Your task to perform on an android device: open app "Walmart Shopping & Grocery" (install if not already installed) Image 0: 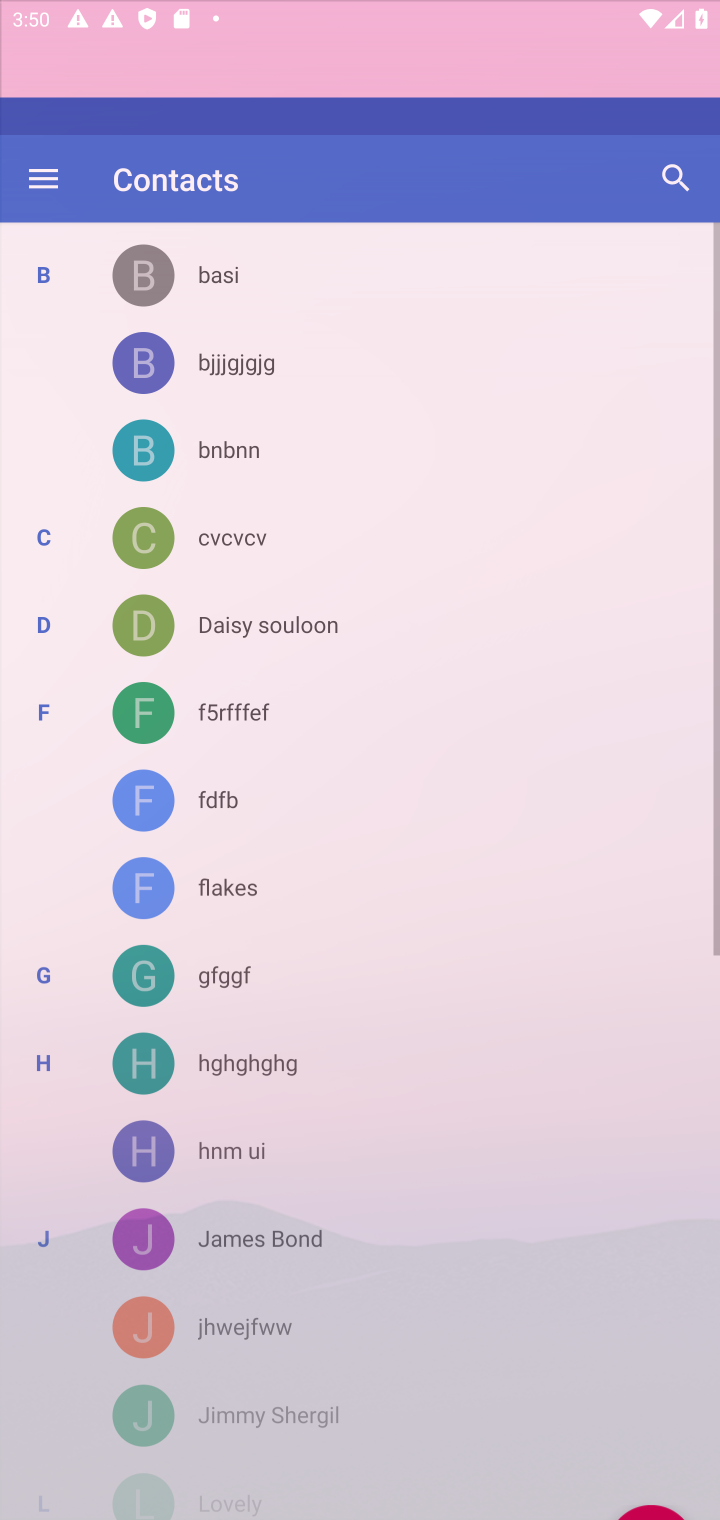
Step 0: press home button
Your task to perform on an android device: open app "Walmart Shopping & Grocery" (install if not already installed) Image 1: 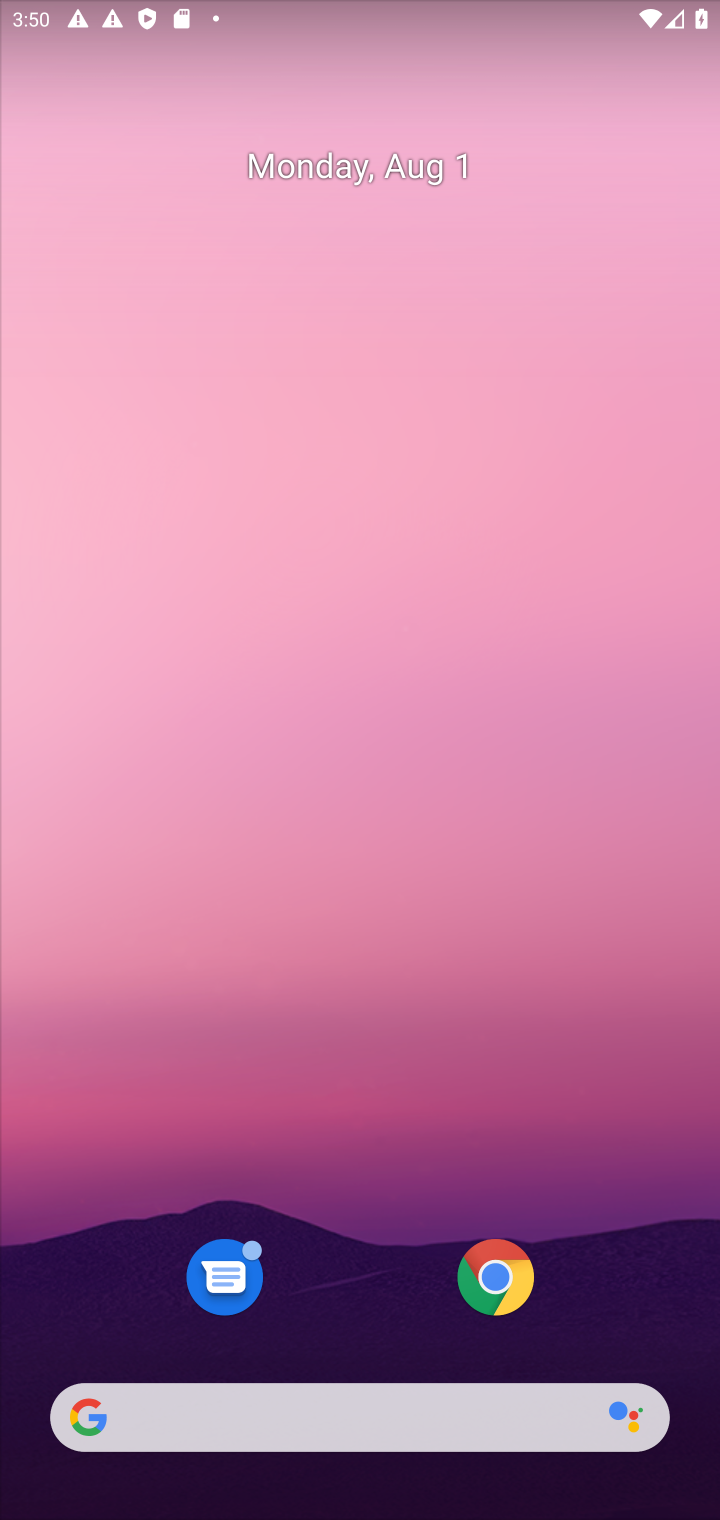
Step 1: drag from (351, 871) to (476, 6)
Your task to perform on an android device: open app "Walmart Shopping & Grocery" (install if not already installed) Image 2: 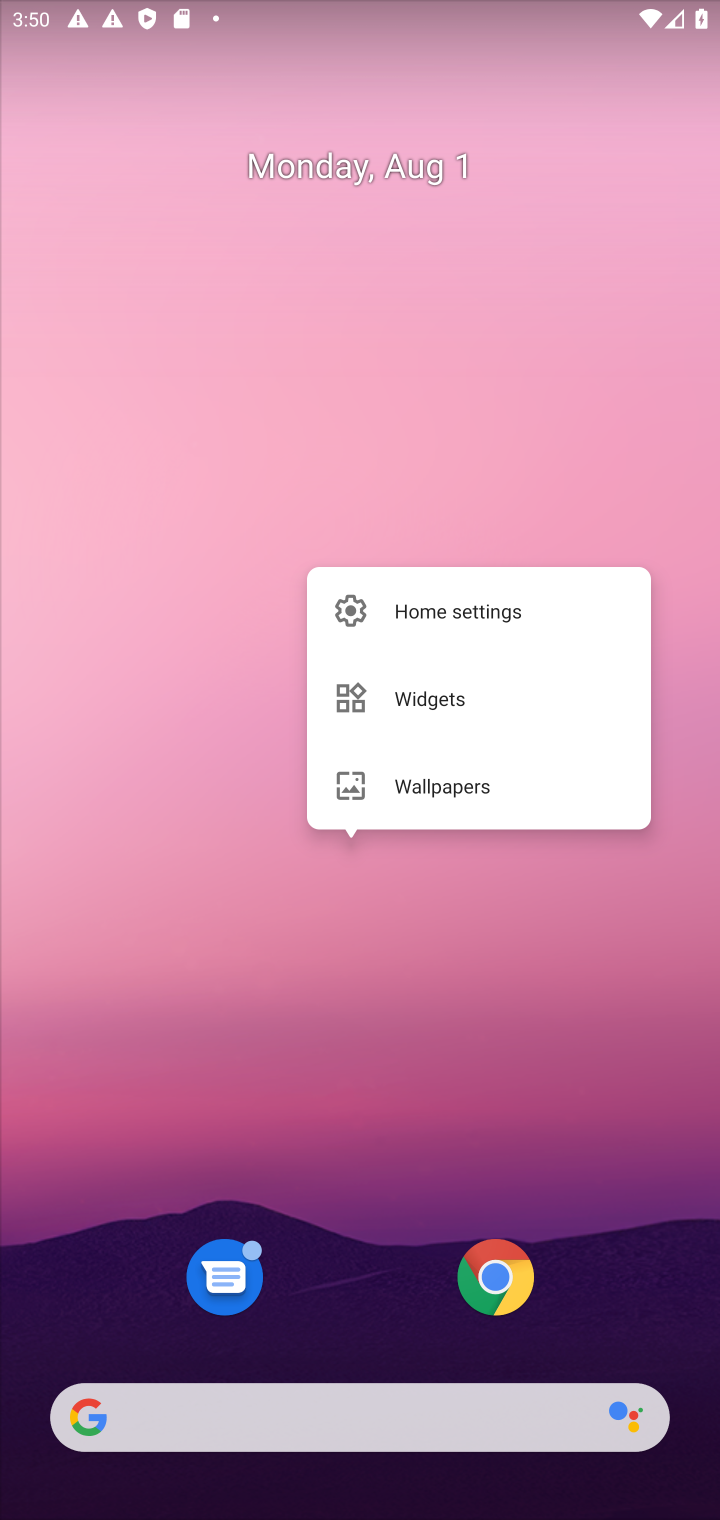
Step 2: click (372, 1156)
Your task to perform on an android device: open app "Walmart Shopping & Grocery" (install if not already installed) Image 3: 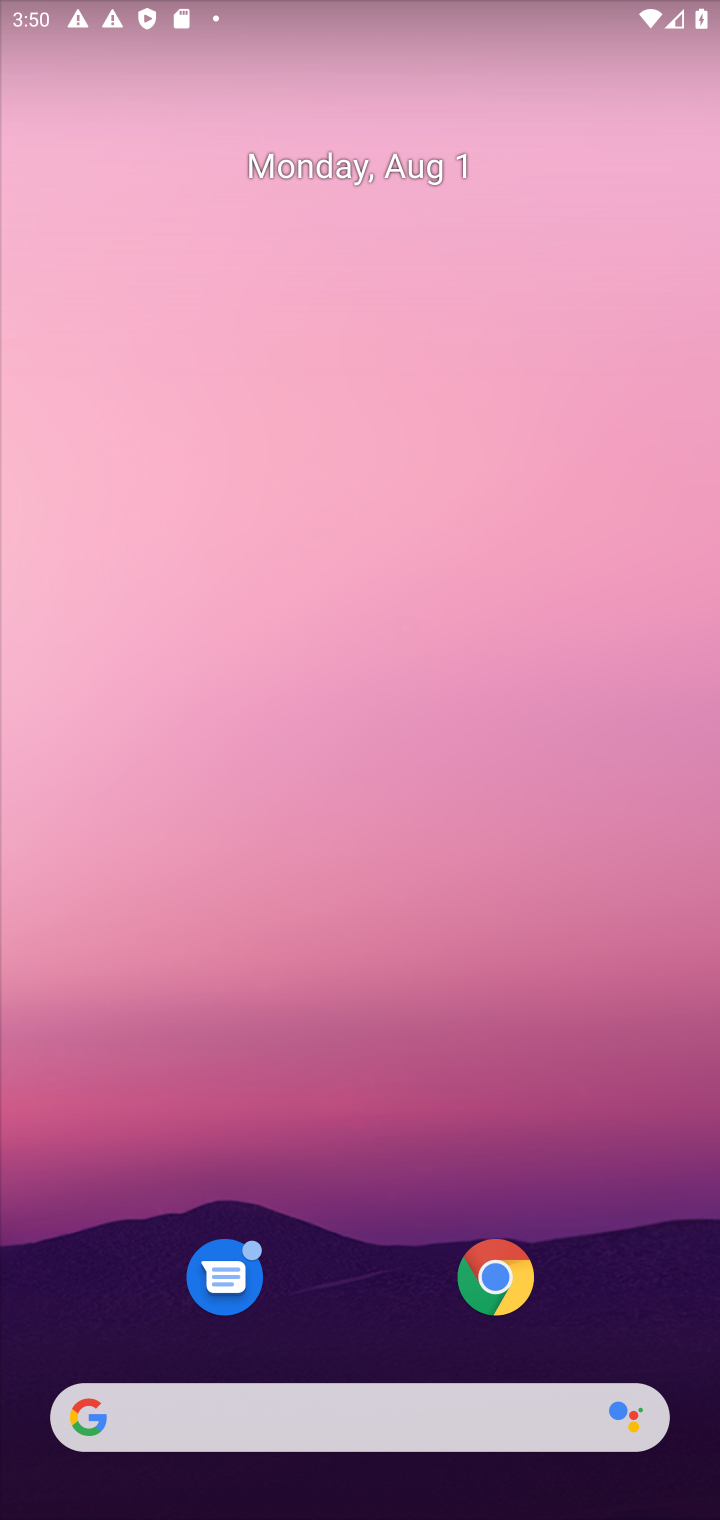
Step 3: drag from (332, 1313) to (328, 6)
Your task to perform on an android device: open app "Walmart Shopping & Grocery" (install if not already installed) Image 4: 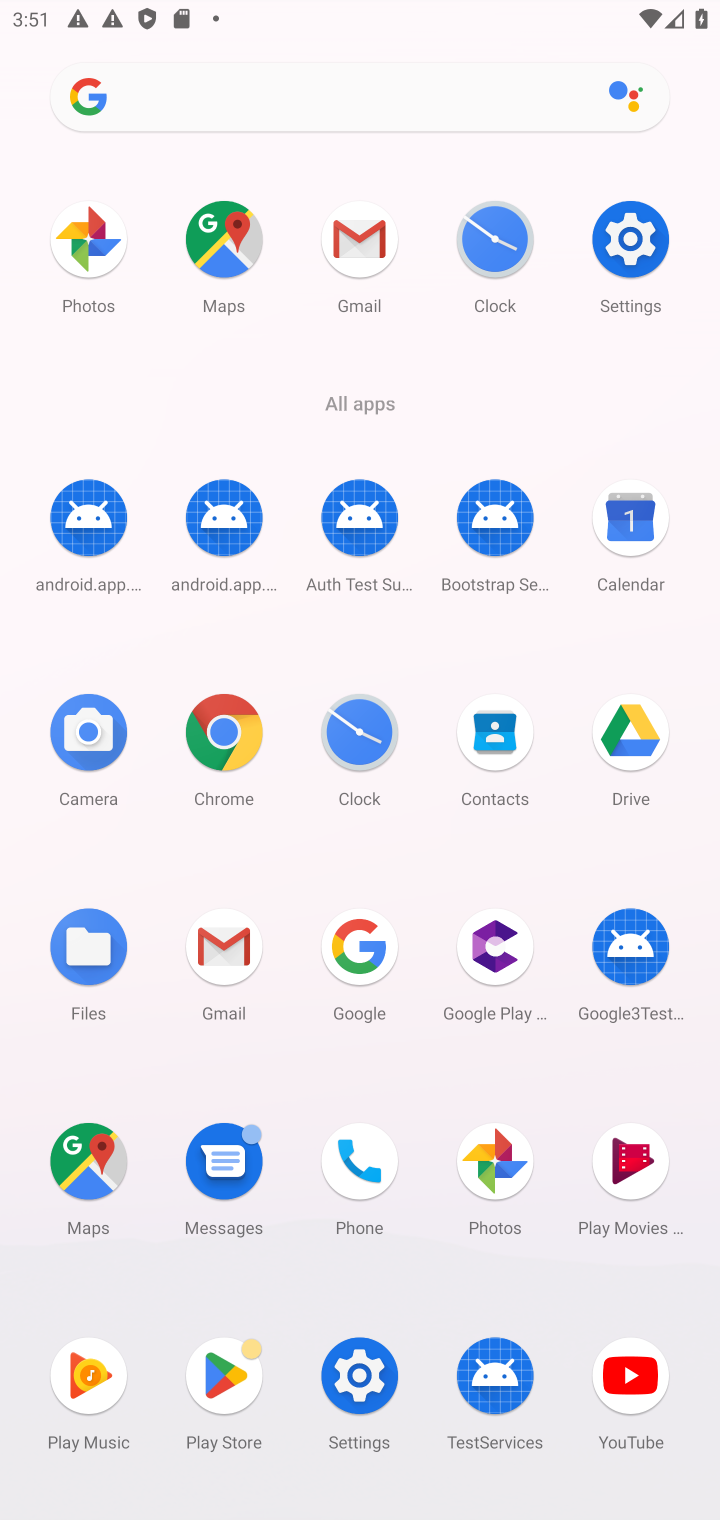
Step 4: click (236, 1373)
Your task to perform on an android device: open app "Walmart Shopping & Grocery" (install if not already installed) Image 5: 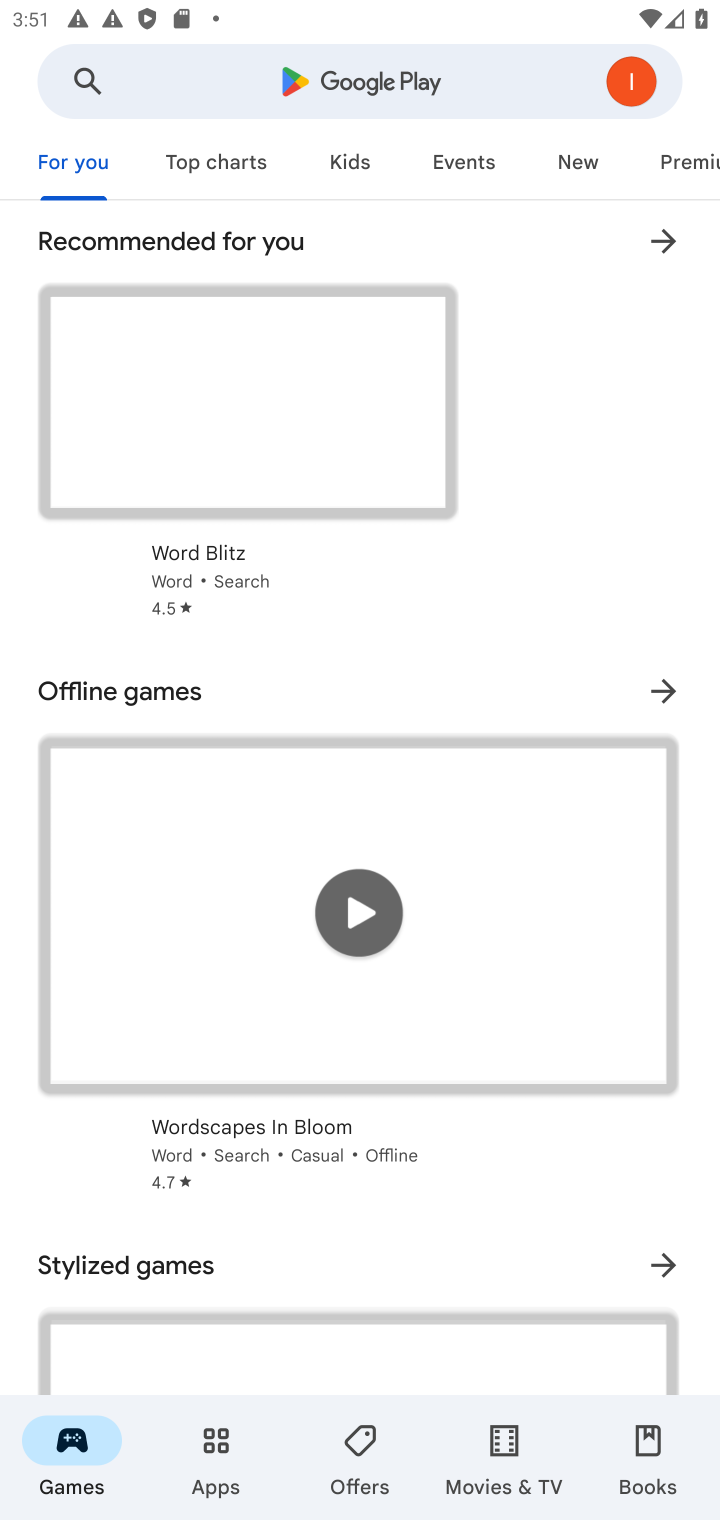
Step 5: click (286, 80)
Your task to perform on an android device: open app "Walmart Shopping & Grocery" (install if not already installed) Image 6: 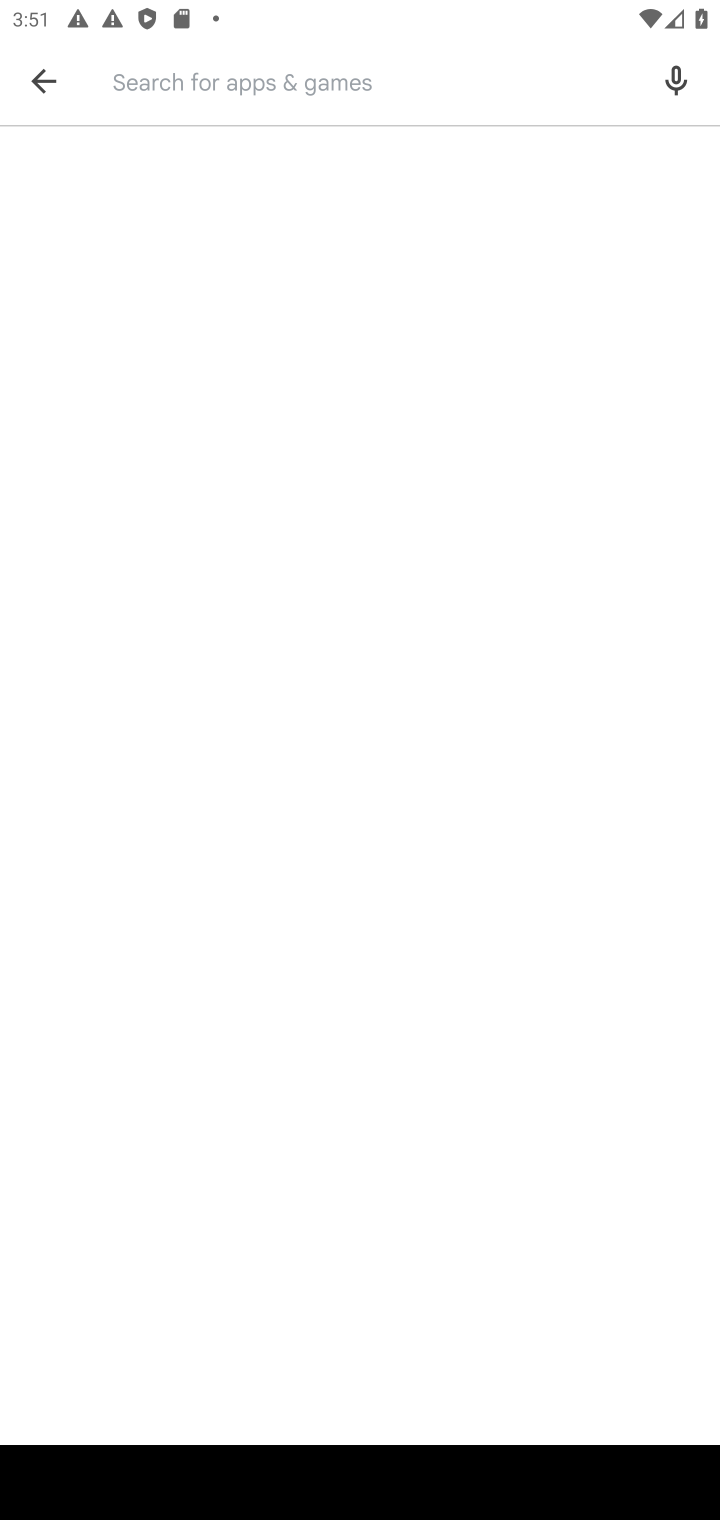
Step 6: type "walmart "
Your task to perform on an android device: open app "Walmart Shopping & Grocery" (install if not already installed) Image 7: 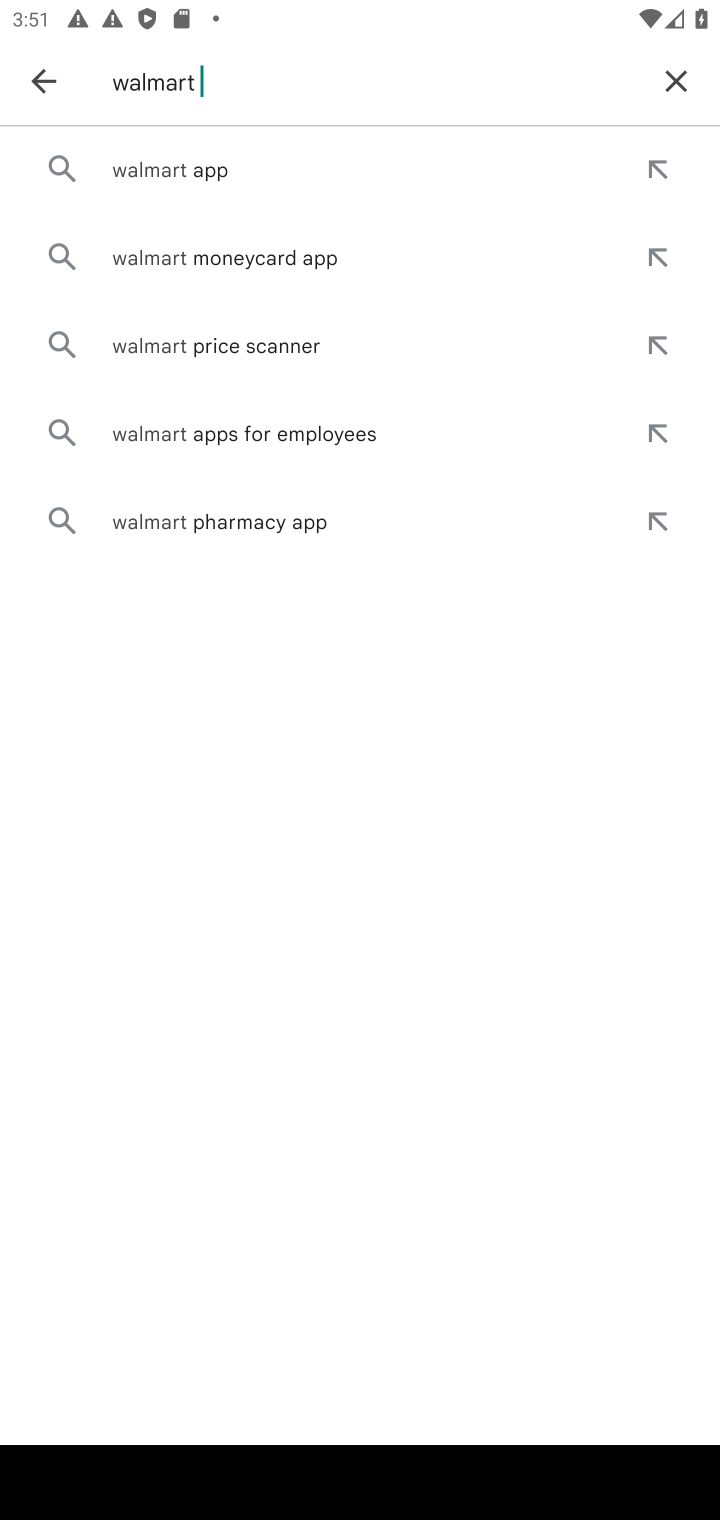
Step 7: click (171, 170)
Your task to perform on an android device: open app "Walmart Shopping & Grocery" (install if not already installed) Image 8: 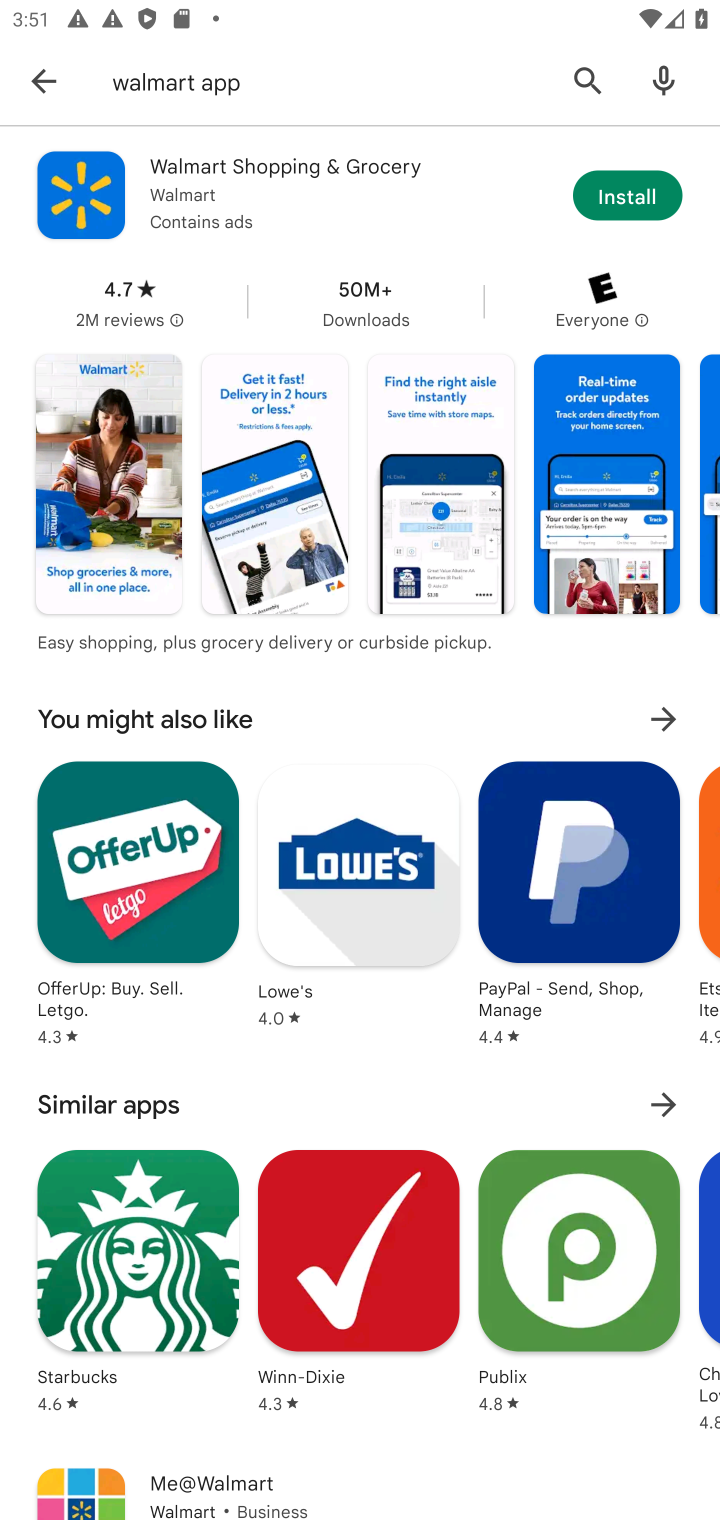
Step 8: click (641, 196)
Your task to perform on an android device: open app "Walmart Shopping & Grocery" (install if not already installed) Image 9: 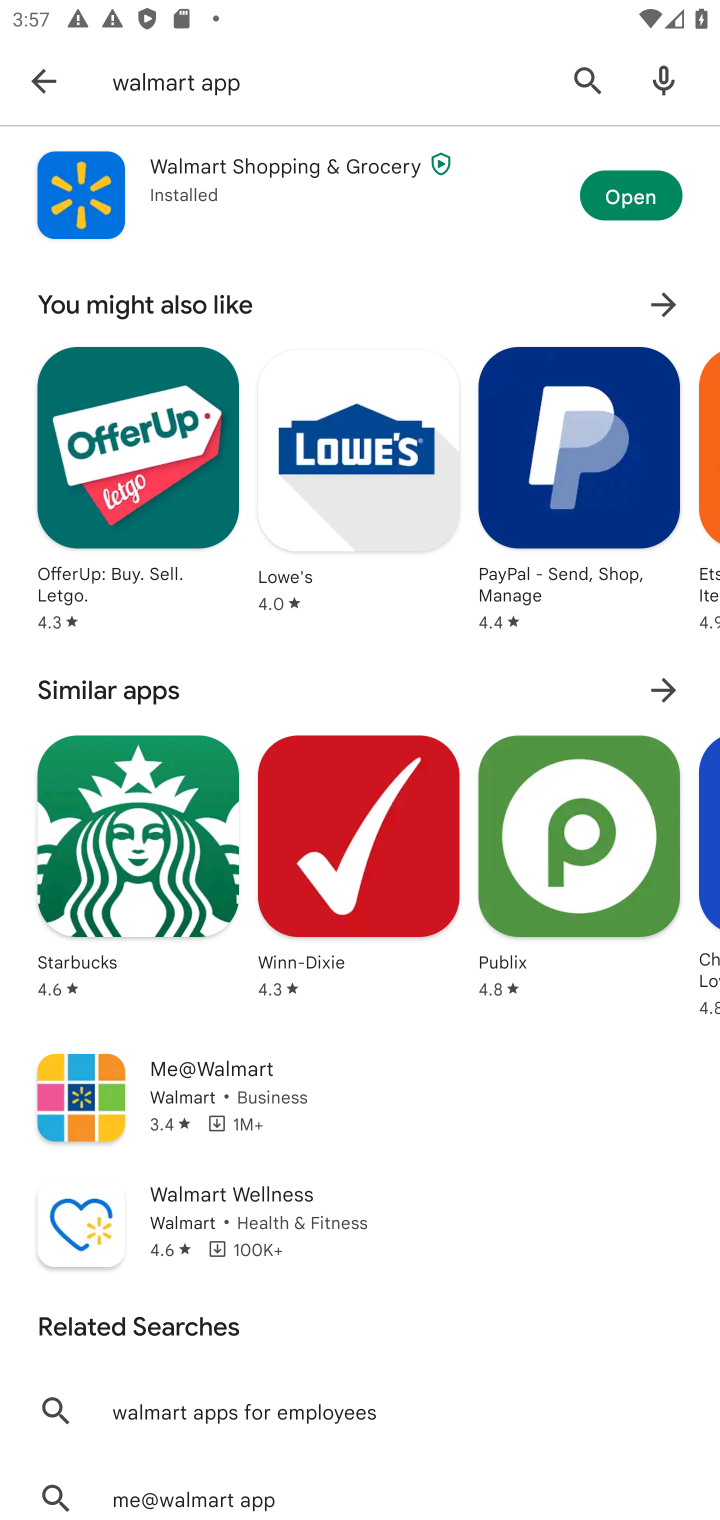
Step 9: click (643, 189)
Your task to perform on an android device: open app "Walmart Shopping & Grocery" (install if not already installed) Image 10: 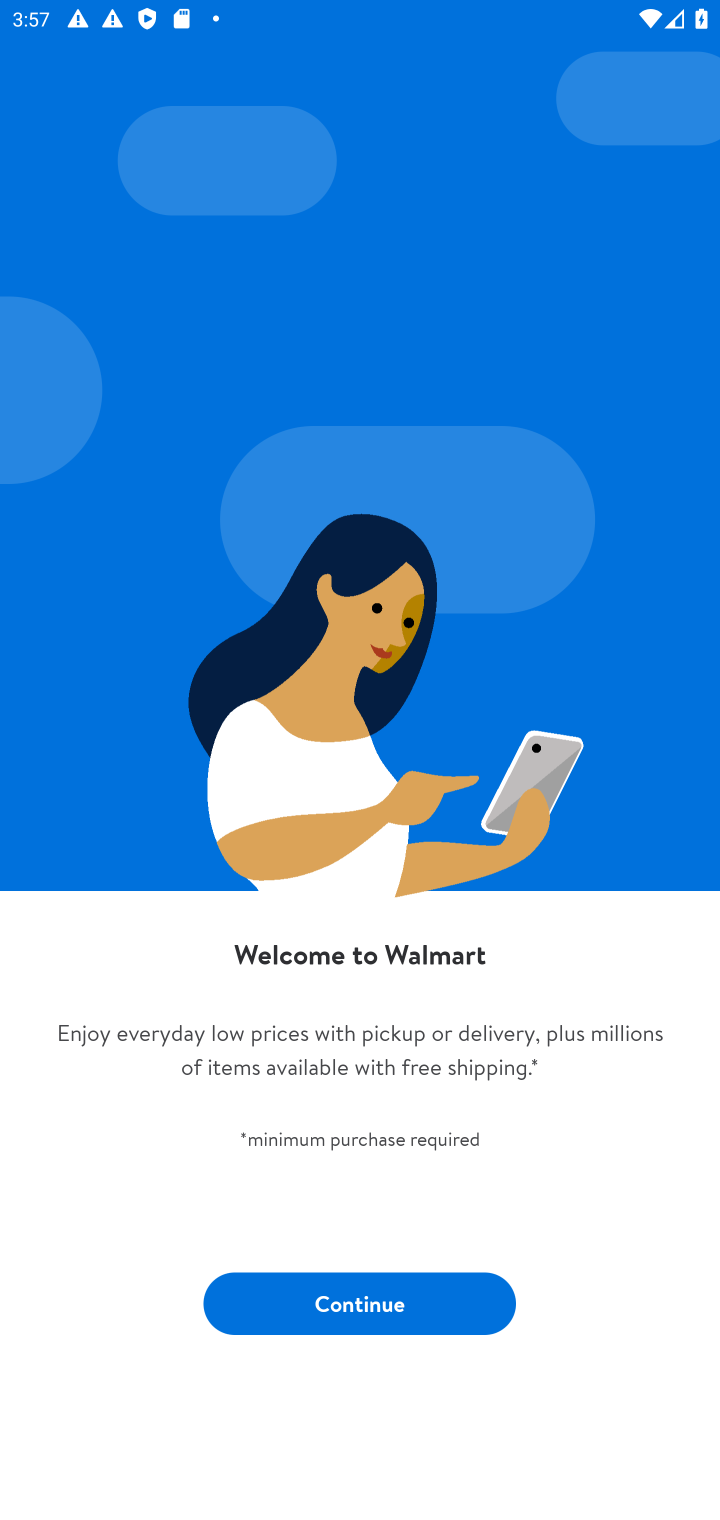
Step 10: click (361, 1302)
Your task to perform on an android device: open app "Walmart Shopping & Grocery" (install if not already installed) Image 11: 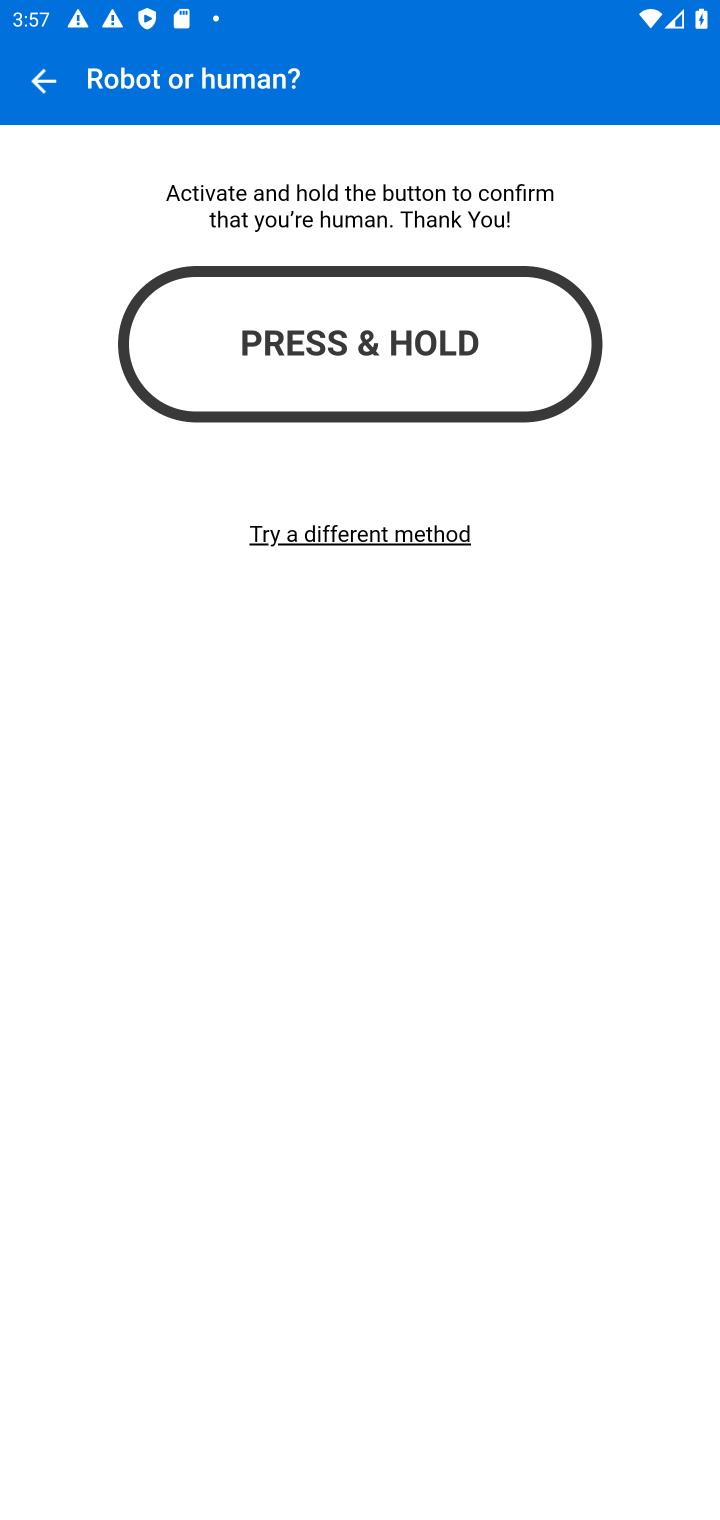
Step 11: click (429, 361)
Your task to perform on an android device: open app "Walmart Shopping & Grocery" (install if not already installed) Image 12: 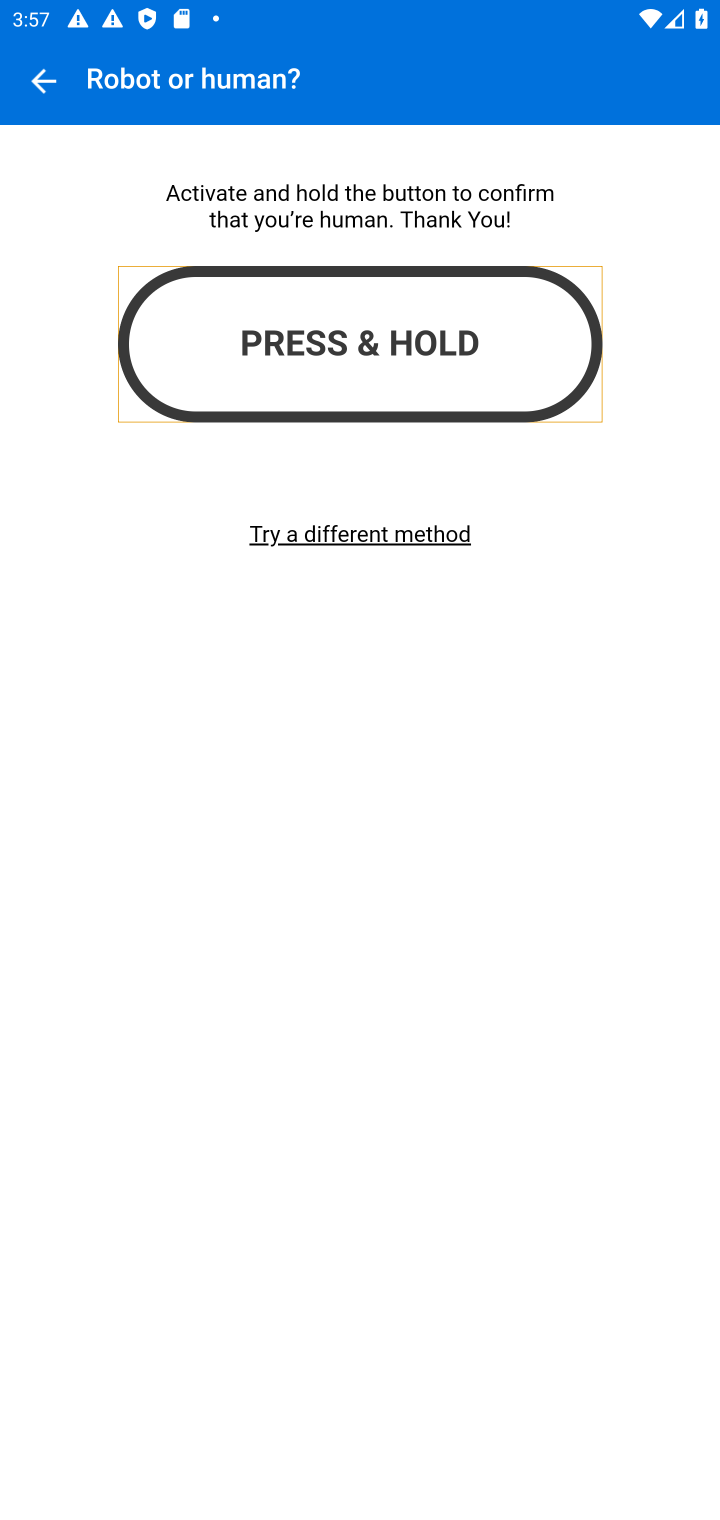
Step 12: click (415, 369)
Your task to perform on an android device: open app "Walmart Shopping & Grocery" (install if not already installed) Image 13: 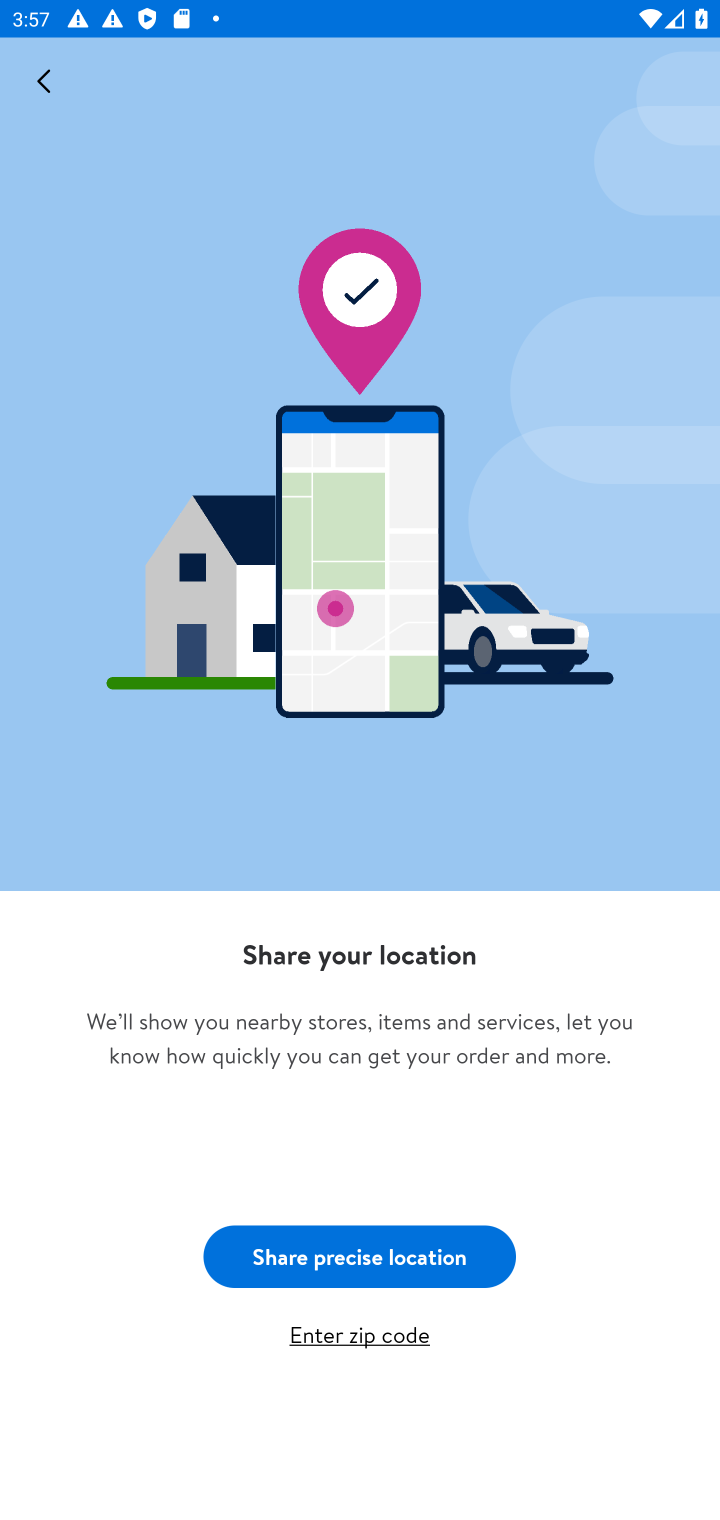
Step 13: task complete